Your task to perform on an android device: Go to settings Image 0: 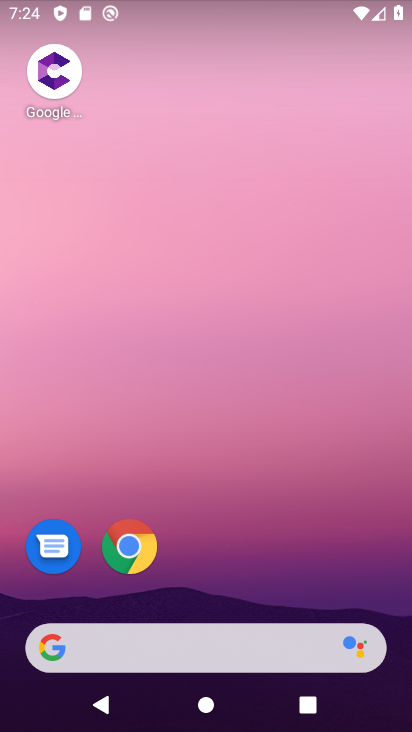
Step 0: drag from (200, 577) to (259, 3)
Your task to perform on an android device: Go to settings Image 1: 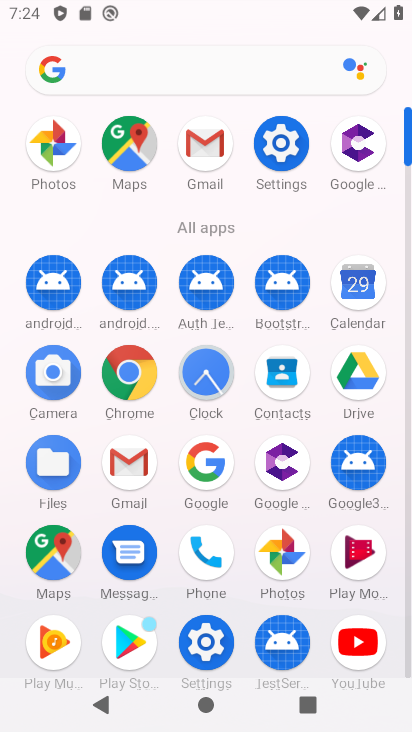
Step 1: click (277, 141)
Your task to perform on an android device: Go to settings Image 2: 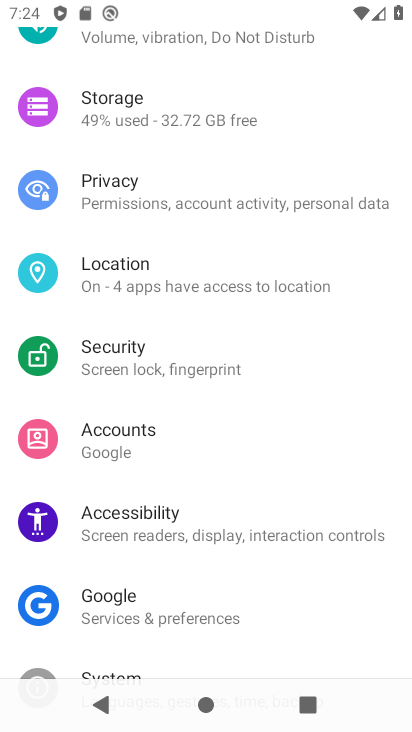
Step 2: task complete